Your task to perform on an android device: Open calendar and show me the fourth week of next month Image 0: 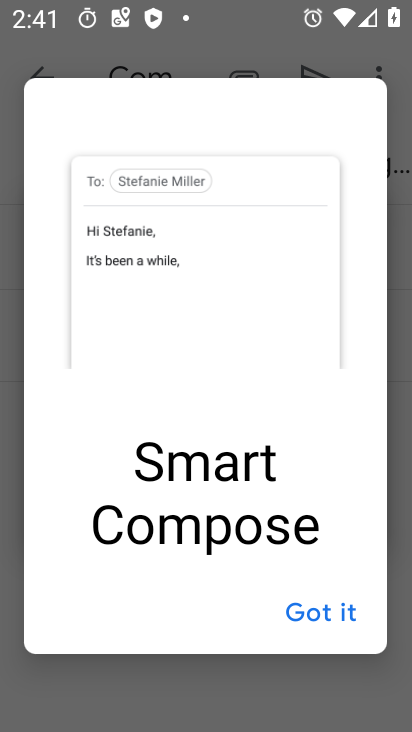
Step 0: press home button
Your task to perform on an android device: Open calendar and show me the fourth week of next month Image 1: 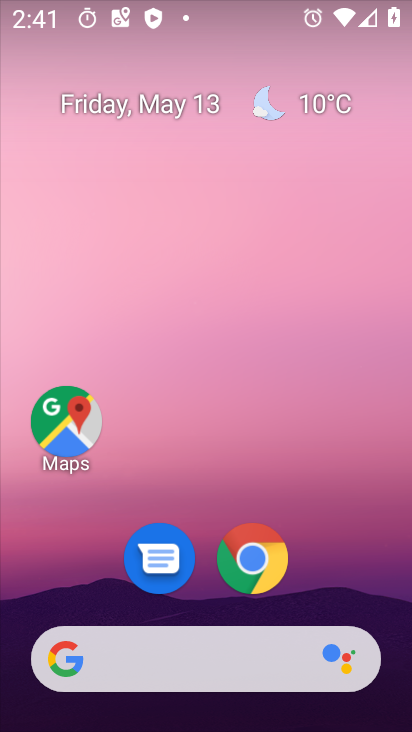
Step 1: drag from (203, 526) to (200, 233)
Your task to perform on an android device: Open calendar and show me the fourth week of next month Image 2: 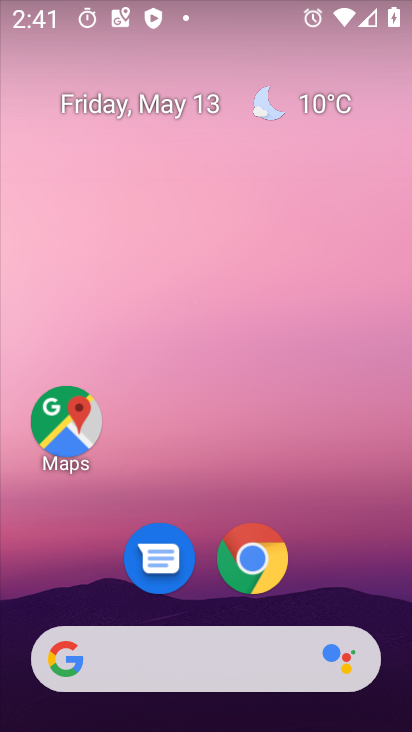
Step 2: drag from (218, 606) to (227, 166)
Your task to perform on an android device: Open calendar and show me the fourth week of next month Image 3: 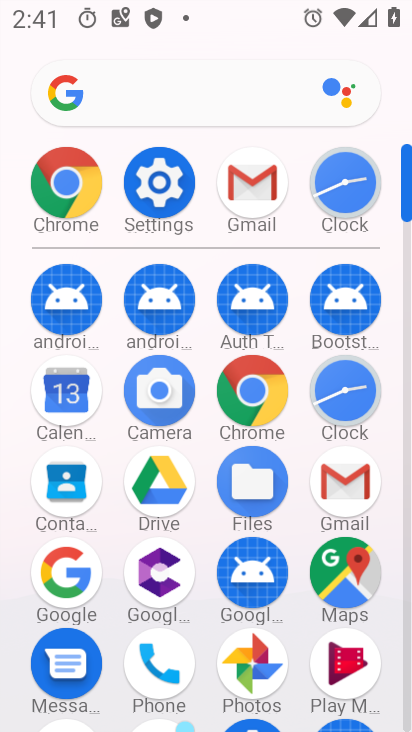
Step 3: click (64, 393)
Your task to perform on an android device: Open calendar and show me the fourth week of next month Image 4: 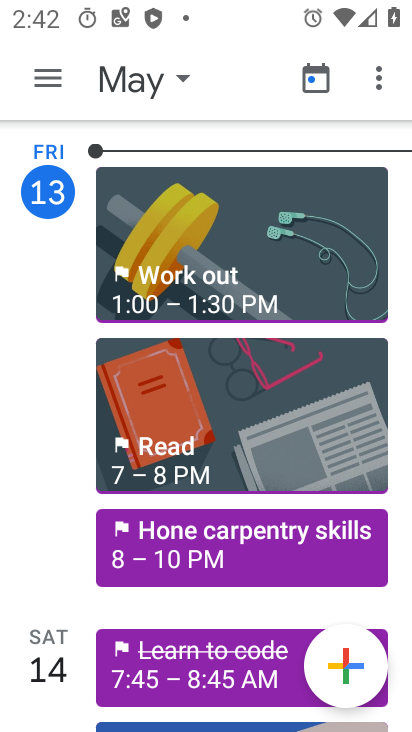
Step 4: click (178, 75)
Your task to perform on an android device: Open calendar and show me the fourth week of next month Image 5: 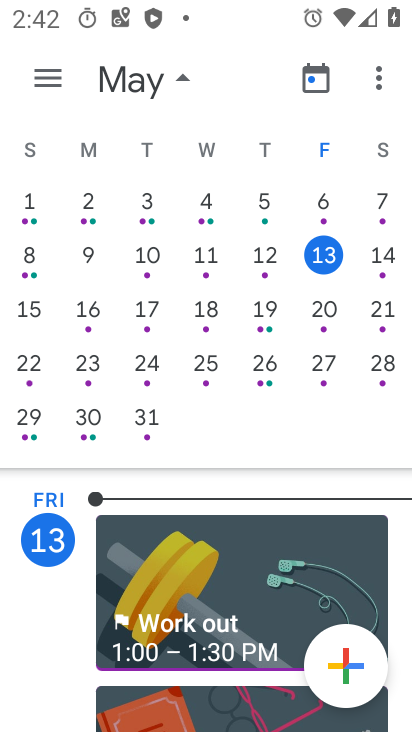
Step 5: drag from (348, 282) to (24, 278)
Your task to perform on an android device: Open calendar and show me the fourth week of next month Image 6: 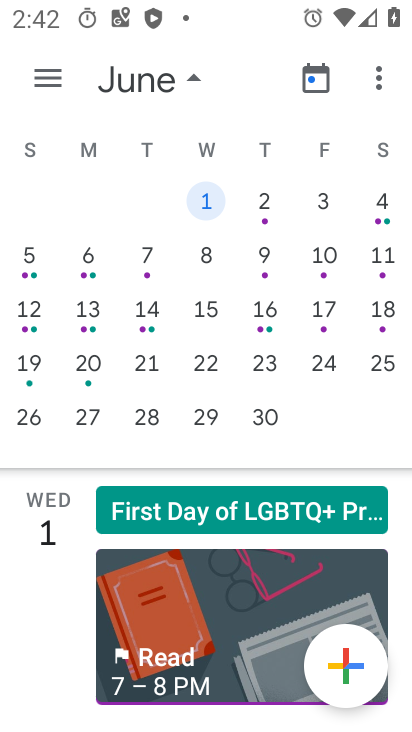
Step 6: click (30, 306)
Your task to perform on an android device: Open calendar and show me the fourth week of next month Image 7: 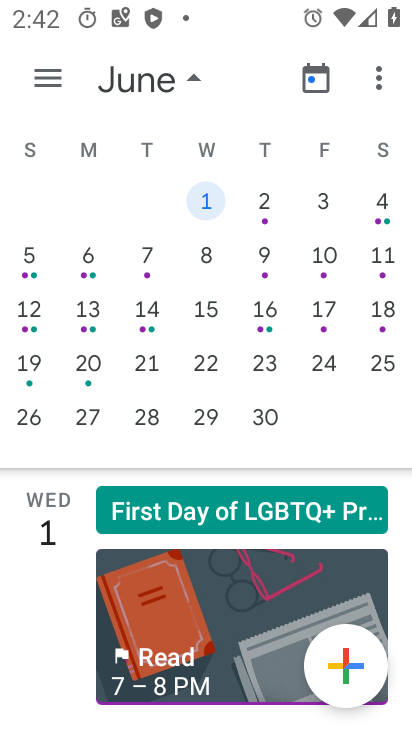
Step 7: click (35, 360)
Your task to perform on an android device: Open calendar and show me the fourth week of next month Image 8: 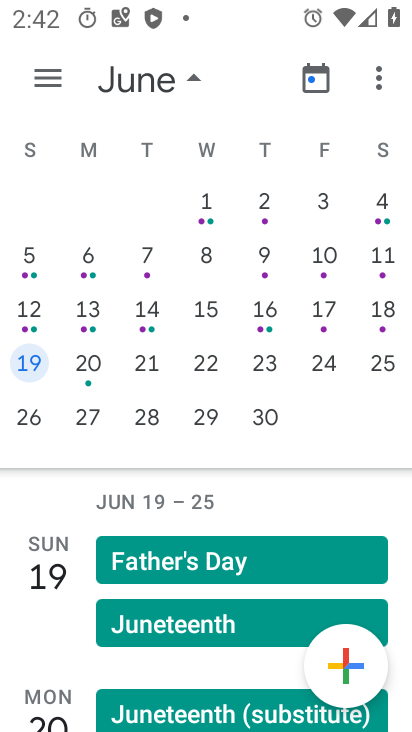
Step 8: click (38, 362)
Your task to perform on an android device: Open calendar and show me the fourth week of next month Image 9: 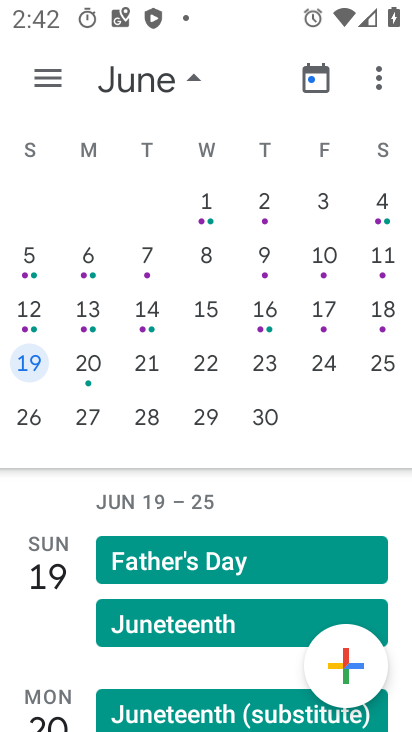
Step 9: task complete